Your task to perform on an android device: Go to CNN.com Image 0: 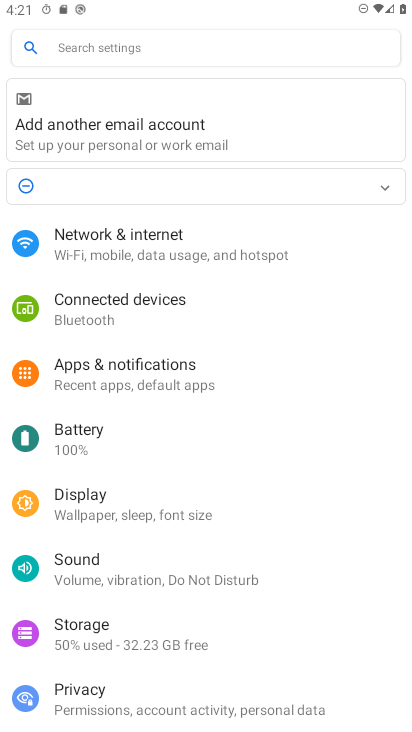
Step 0: press home button
Your task to perform on an android device: Go to CNN.com Image 1: 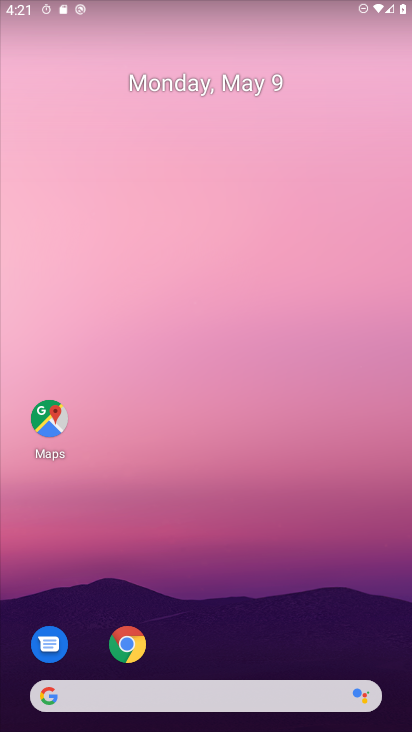
Step 1: click (135, 662)
Your task to perform on an android device: Go to CNN.com Image 2: 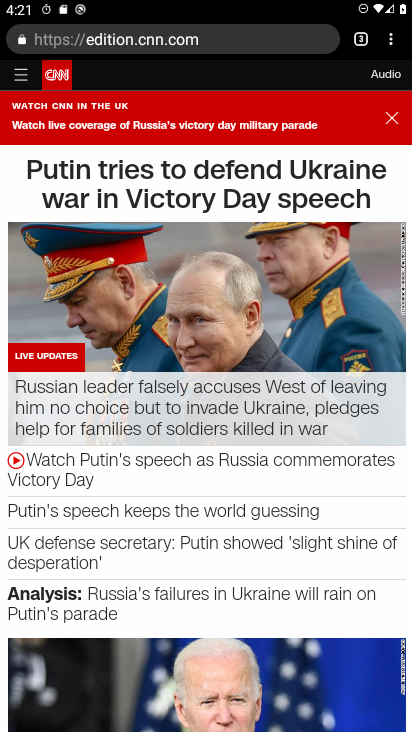
Step 2: task complete